Your task to perform on an android device: clear history in the chrome app Image 0: 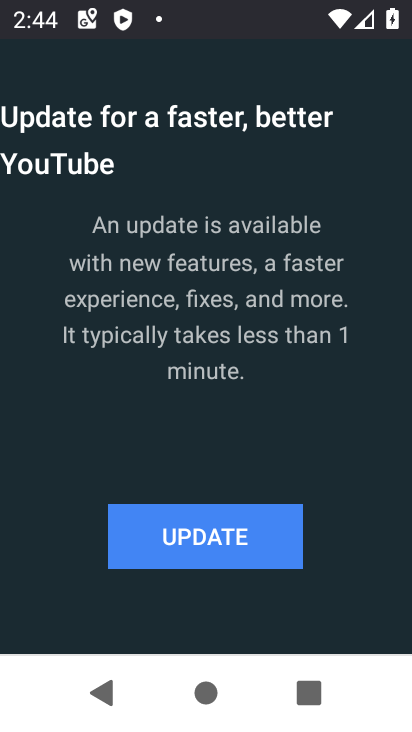
Step 0: task impossible